Your task to perform on an android device: Go to Maps Image 0: 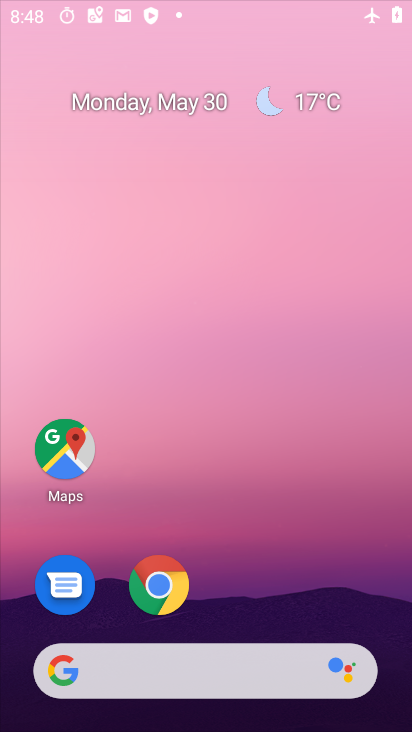
Step 0: drag from (265, 385) to (301, 126)
Your task to perform on an android device: Go to Maps Image 1: 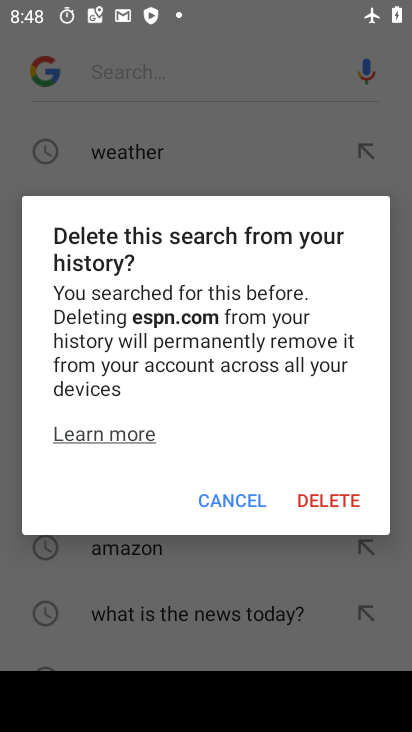
Step 1: press back button
Your task to perform on an android device: Go to Maps Image 2: 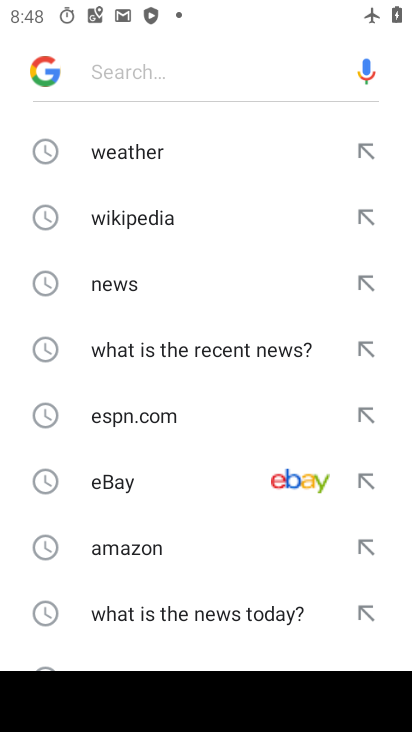
Step 2: press home button
Your task to perform on an android device: Go to Maps Image 3: 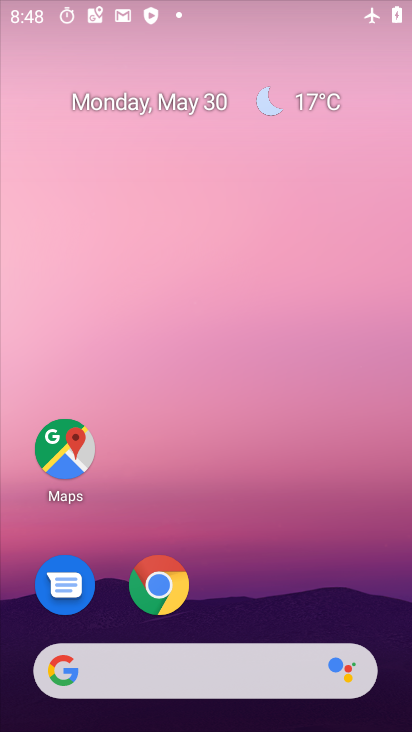
Step 3: click (319, 167)
Your task to perform on an android device: Go to Maps Image 4: 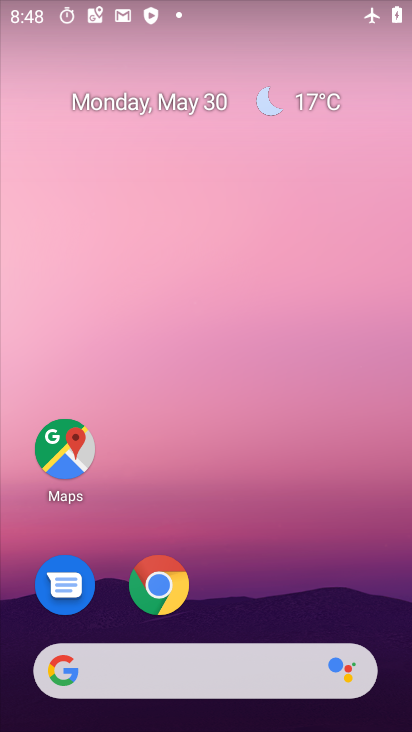
Step 4: drag from (246, 507) to (306, 69)
Your task to perform on an android device: Go to Maps Image 5: 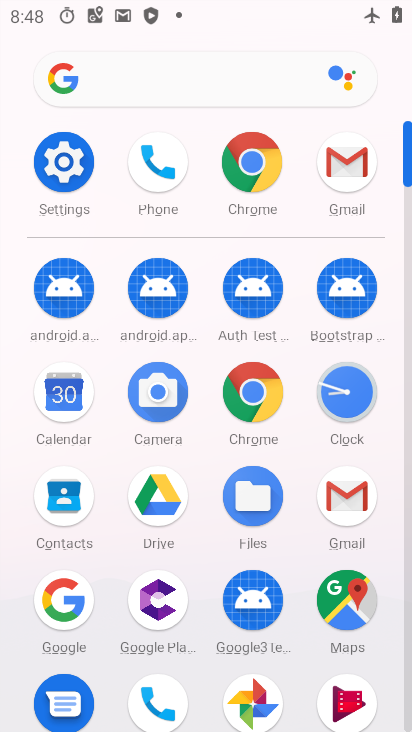
Step 5: click (352, 610)
Your task to perform on an android device: Go to Maps Image 6: 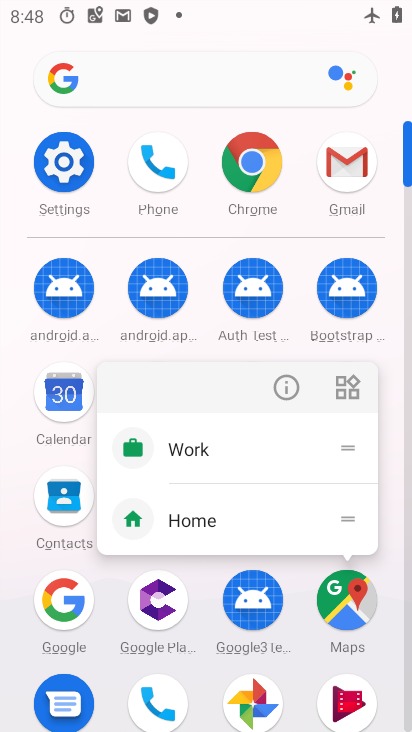
Step 6: click (295, 388)
Your task to perform on an android device: Go to Maps Image 7: 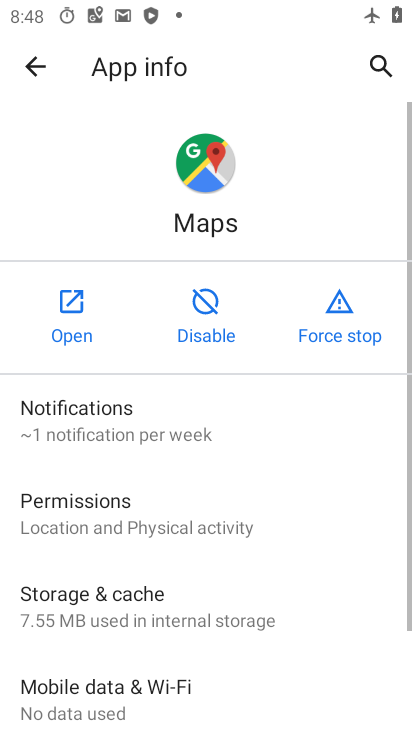
Step 7: click (75, 316)
Your task to perform on an android device: Go to Maps Image 8: 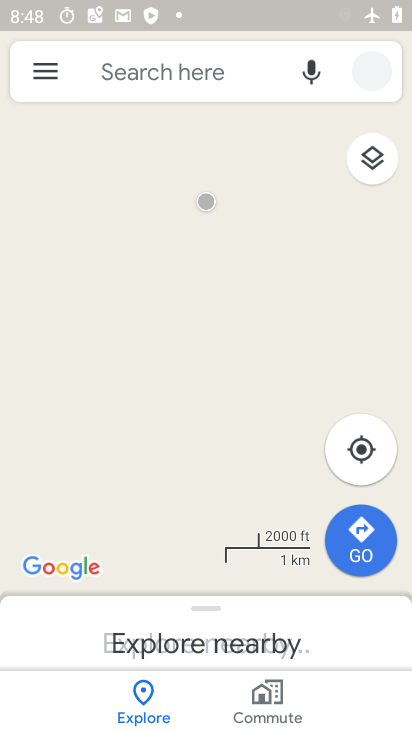
Step 8: drag from (204, 459) to (274, 182)
Your task to perform on an android device: Go to Maps Image 9: 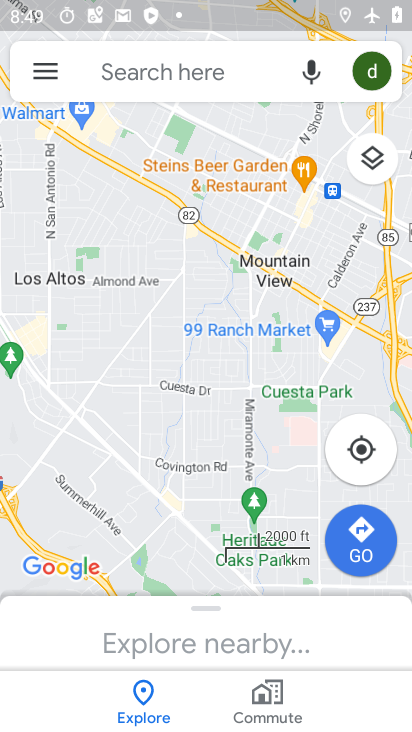
Step 9: click (47, 88)
Your task to perform on an android device: Go to Maps Image 10: 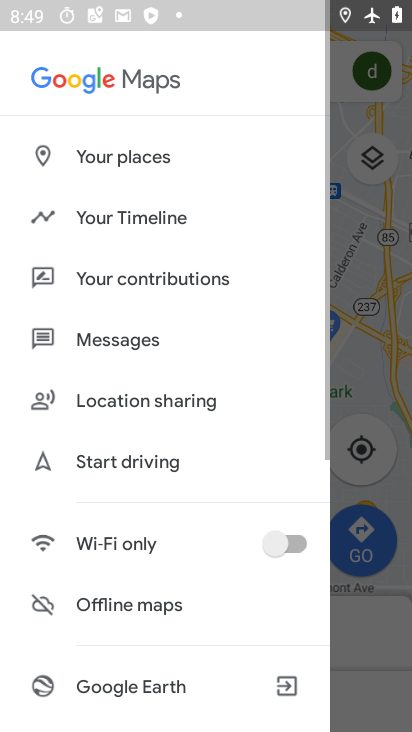
Step 10: click (45, 76)
Your task to perform on an android device: Go to Maps Image 11: 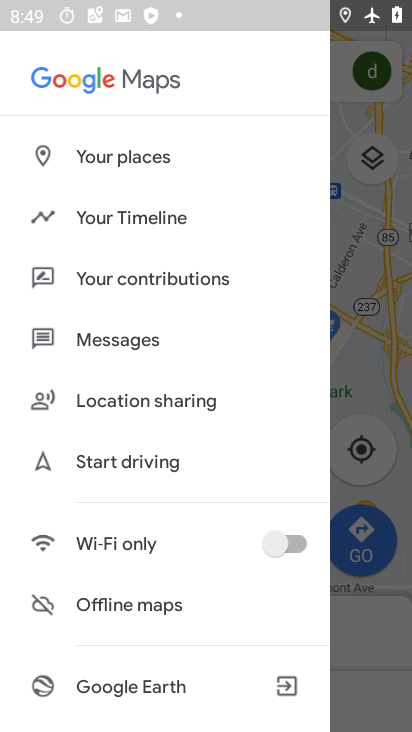
Step 11: click (366, 322)
Your task to perform on an android device: Go to Maps Image 12: 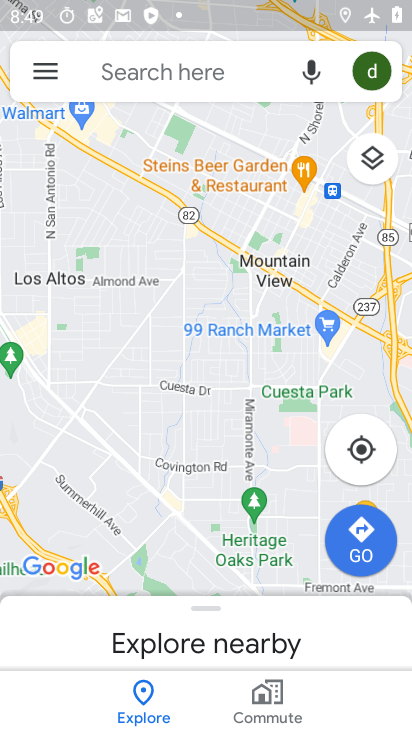
Step 12: task complete